Your task to perform on an android device: Go to accessibility settings Image 0: 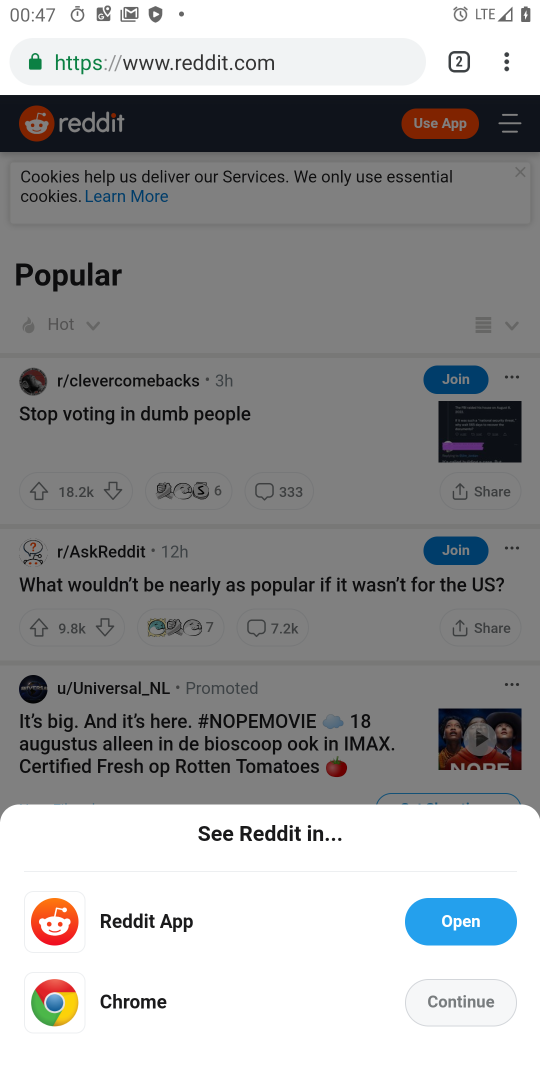
Step 0: press home button
Your task to perform on an android device: Go to accessibility settings Image 1: 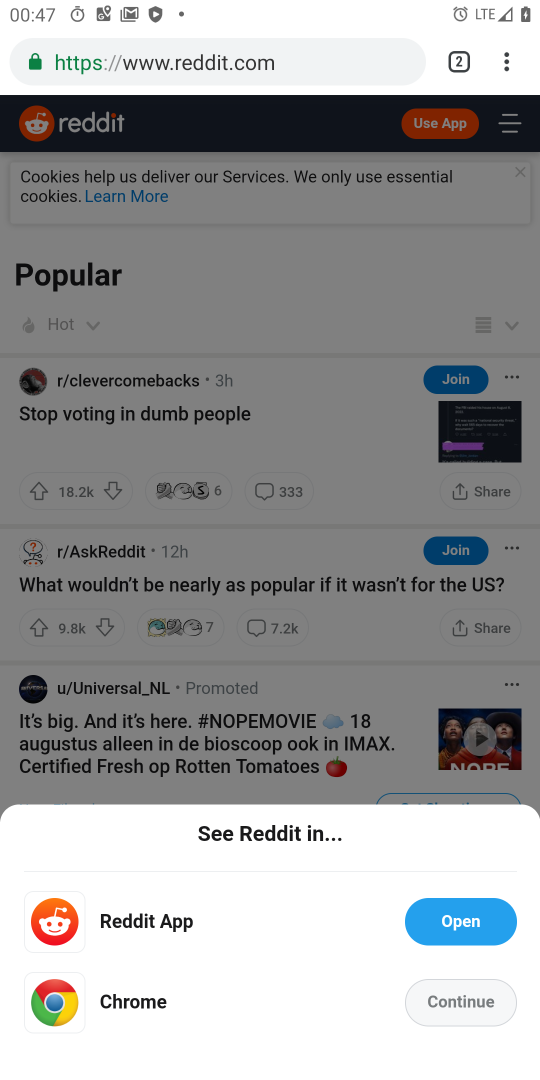
Step 1: press home button
Your task to perform on an android device: Go to accessibility settings Image 2: 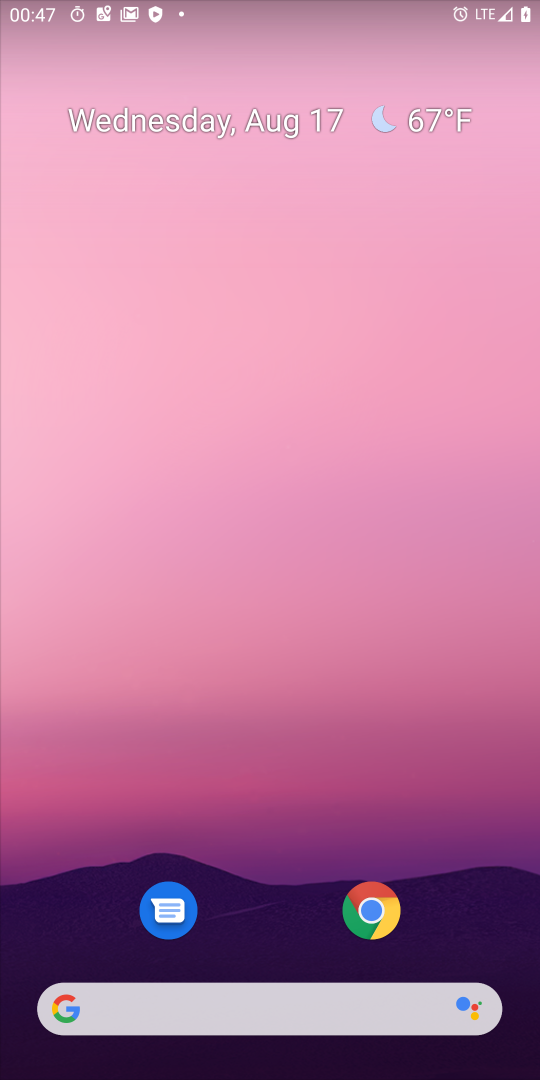
Step 2: drag from (271, 668) to (351, 9)
Your task to perform on an android device: Go to accessibility settings Image 3: 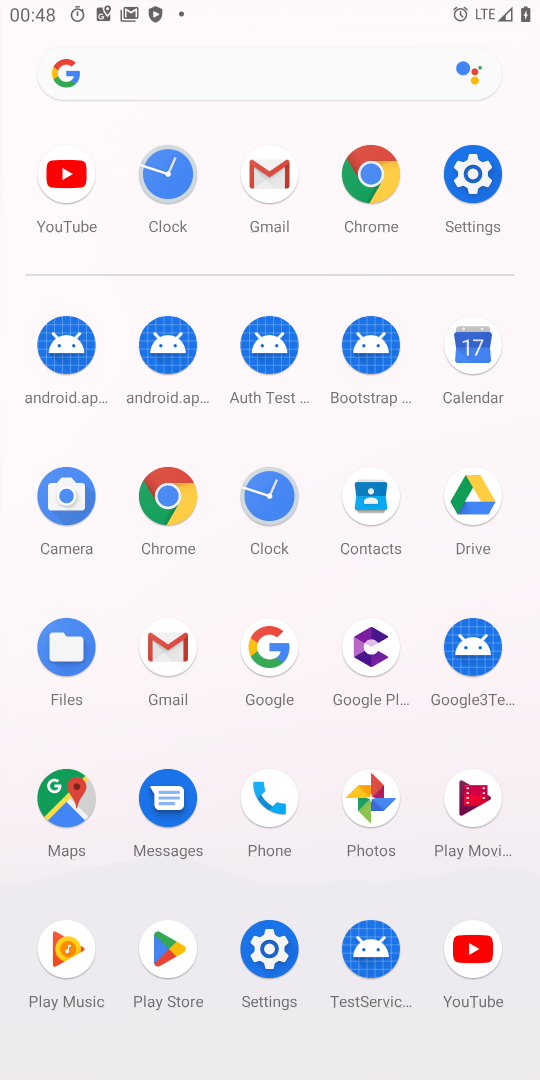
Step 3: click (268, 935)
Your task to perform on an android device: Go to accessibility settings Image 4: 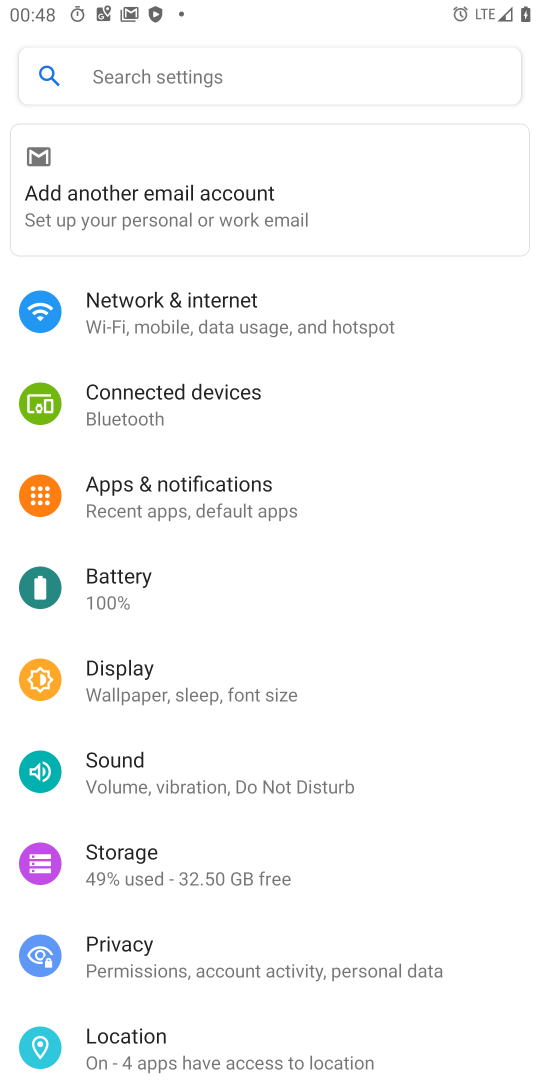
Step 4: drag from (229, 861) to (302, 8)
Your task to perform on an android device: Go to accessibility settings Image 5: 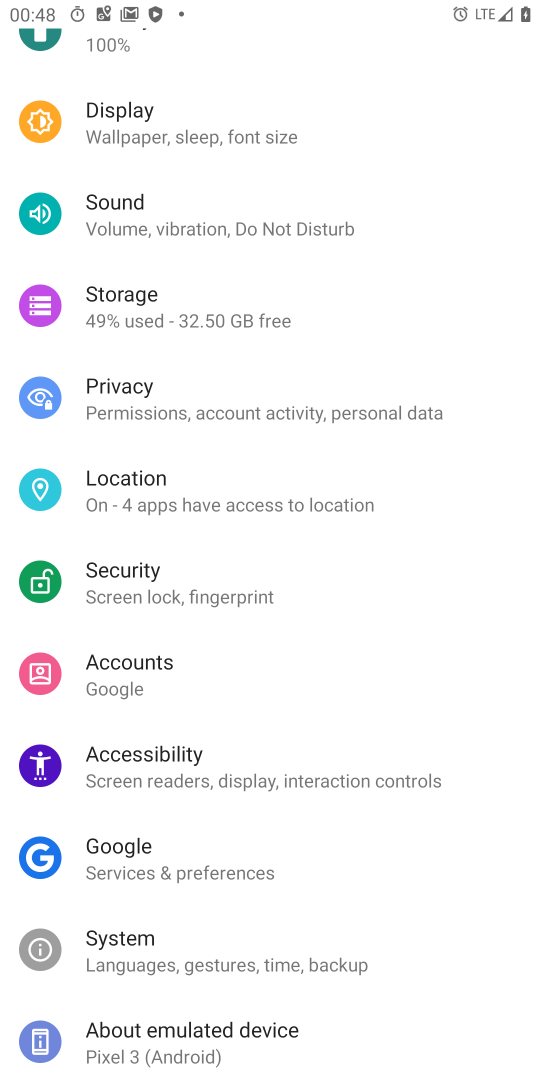
Step 5: click (182, 773)
Your task to perform on an android device: Go to accessibility settings Image 6: 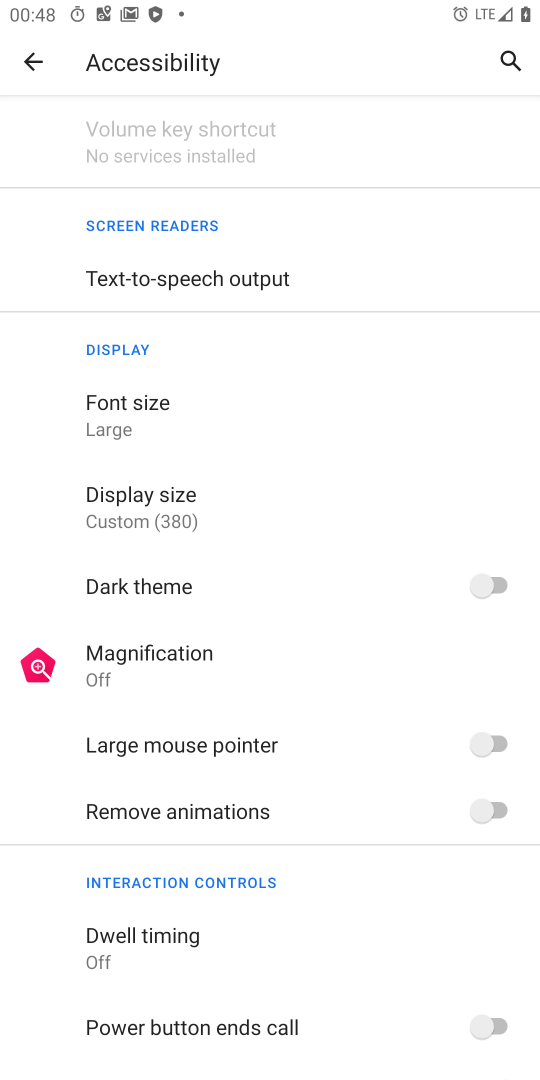
Step 6: task complete